Your task to perform on an android device: Go to settings Image 0: 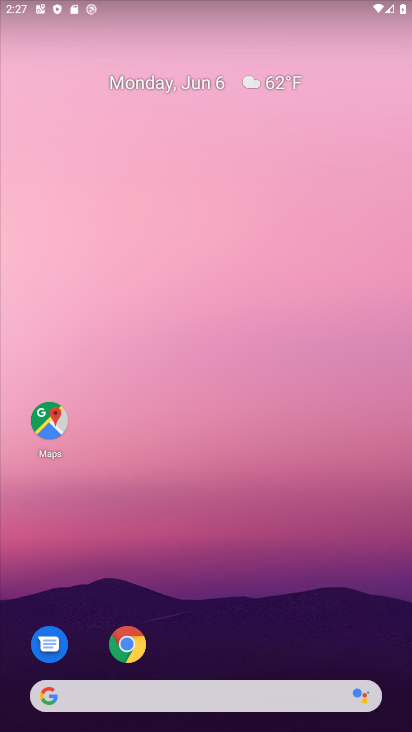
Step 0: drag from (197, 634) to (159, 32)
Your task to perform on an android device: Go to settings Image 1: 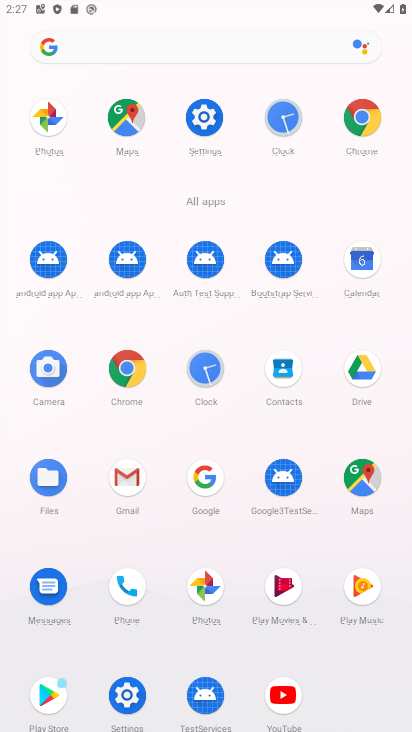
Step 1: click (122, 699)
Your task to perform on an android device: Go to settings Image 2: 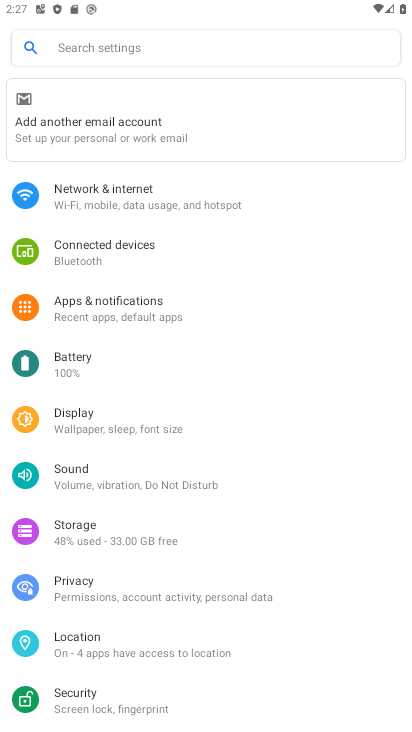
Step 2: task complete